Your task to perform on an android device: Open the calendar app, open the side menu, and click the "Day" option Image 0: 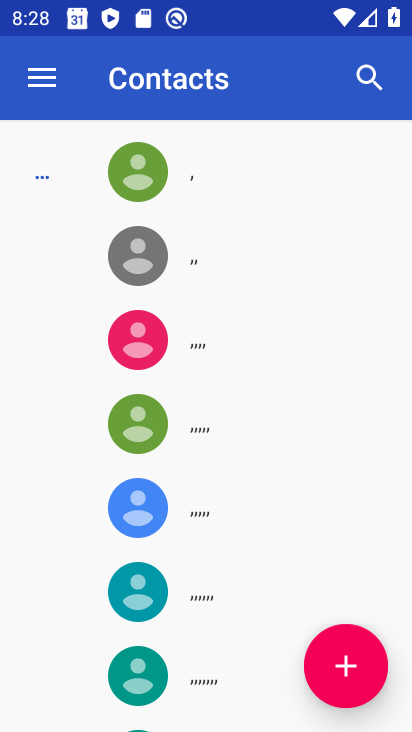
Step 0: press back button
Your task to perform on an android device: Open the calendar app, open the side menu, and click the "Day" option Image 1: 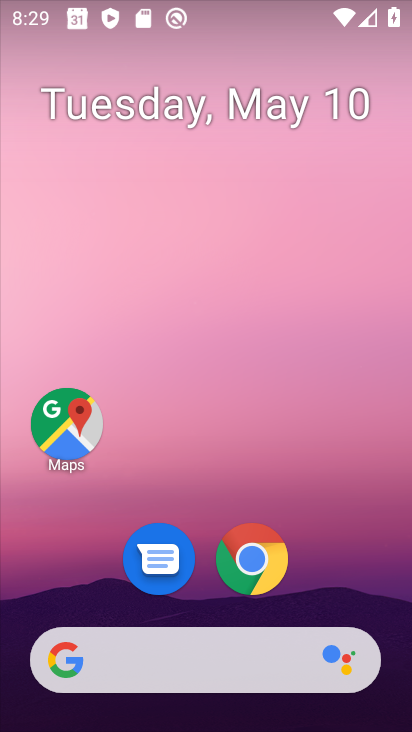
Step 1: drag from (313, 551) to (261, 80)
Your task to perform on an android device: Open the calendar app, open the side menu, and click the "Day" option Image 2: 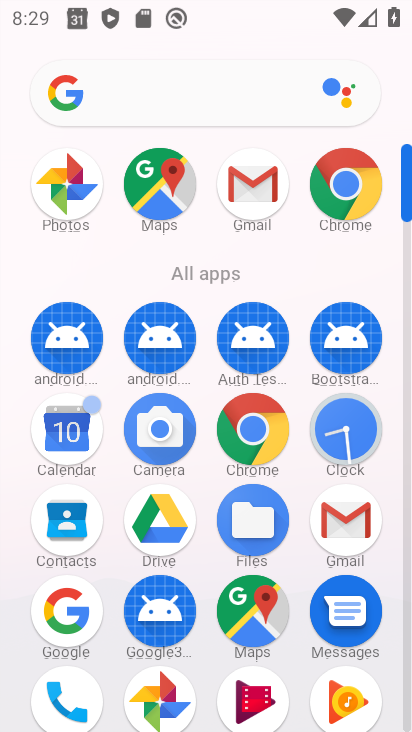
Step 2: drag from (21, 581) to (13, 273)
Your task to perform on an android device: Open the calendar app, open the side menu, and click the "Day" option Image 3: 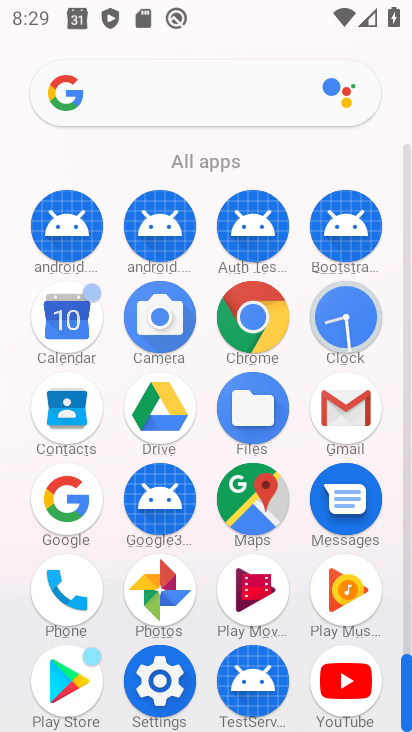
Step 3: click (62, 312)
Your task to perform on an android device: Open the calendar app, open the side menu, and click the "Day" option Image 4: 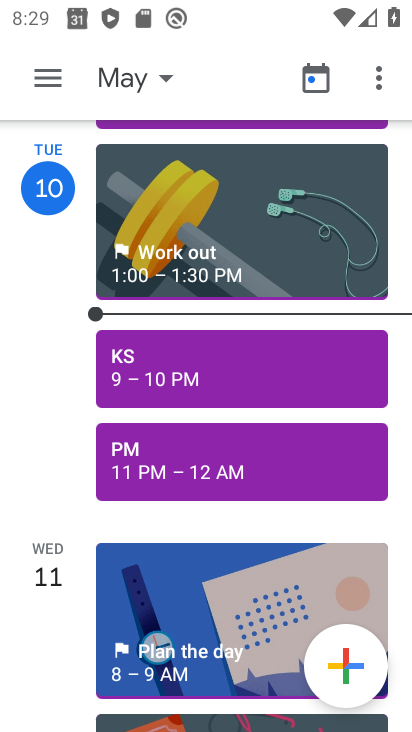
Step 4: click (38, 79)
Your task to perform on an android device: Open the calendar app, open the side menu, and click the "Day" option Image 5: 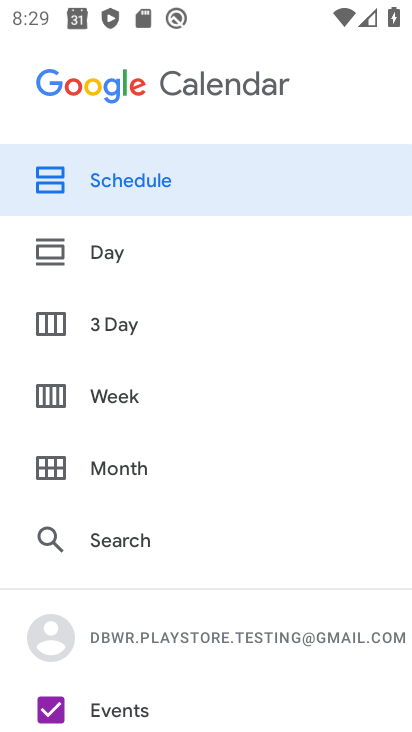
Step 5: click (121, 244)
Your task to perform on an android device: Open the calendar app, open the side menu, and click the "Day" option Image 6: 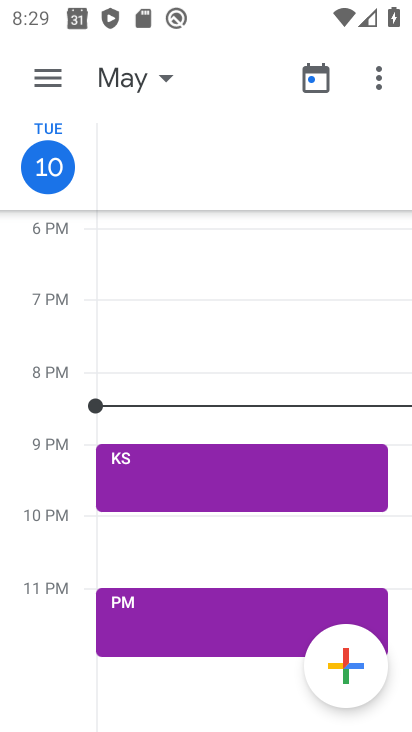
Step 6: task complete